Your task to perform on an android device: turn off improve location accuracy Image 0: 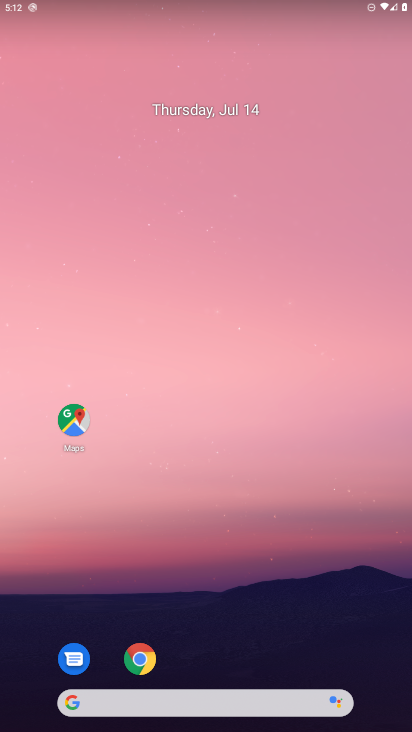
Step 0: press home button
Your task to perform on an android device: turn off improve location accuracy Image 1: 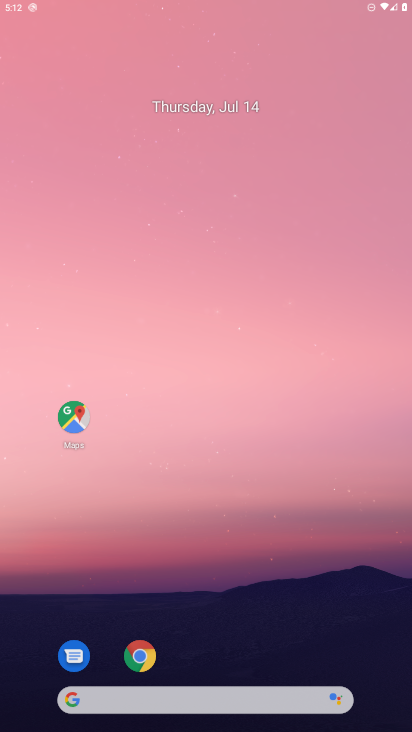
Step 1: drag from (226, 663) to (222, 223)
Your task to perform on an android device: turn off improve location accuracy Image 2: 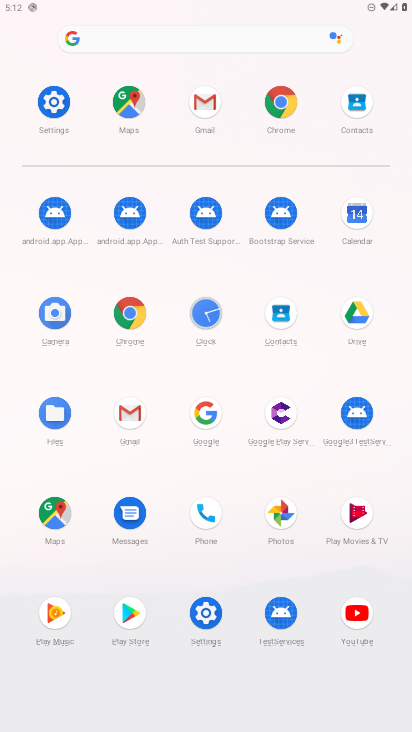
Step 2: click (45, 97)
Your task to perform on an android device: turn off improve location accuracy Image 3: 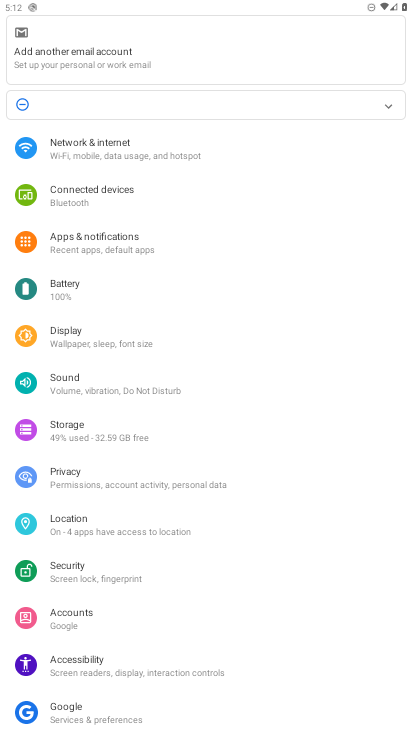
Step 3: click (92, 522)
Your task to perform on an android device: turn off improve location accuracy Image 4: 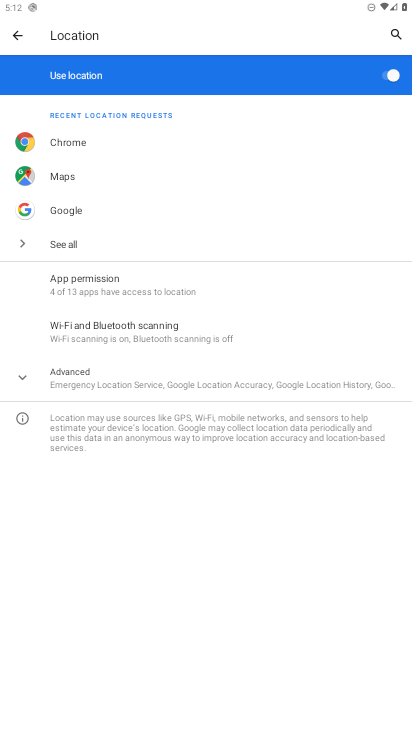
Step 4: click (27, 374)
Your task to perform on an android device: turn off improve location accuracy Image 5: 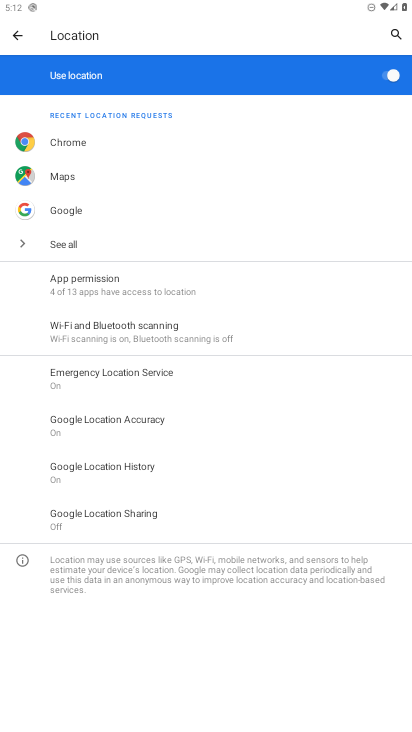
Step 5: click (115, 417)
Your task to perform on an android device: turn off improve location accuracy Image 6: 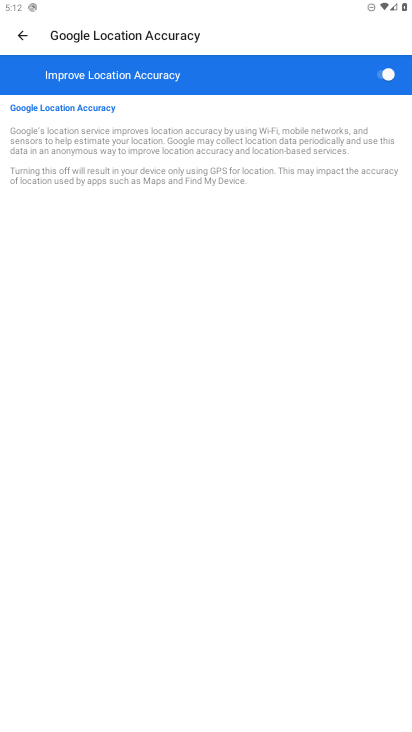
Step 6: click (379, 70)
Your task to perform on an android device: turn off improve location accuracy Image 7: 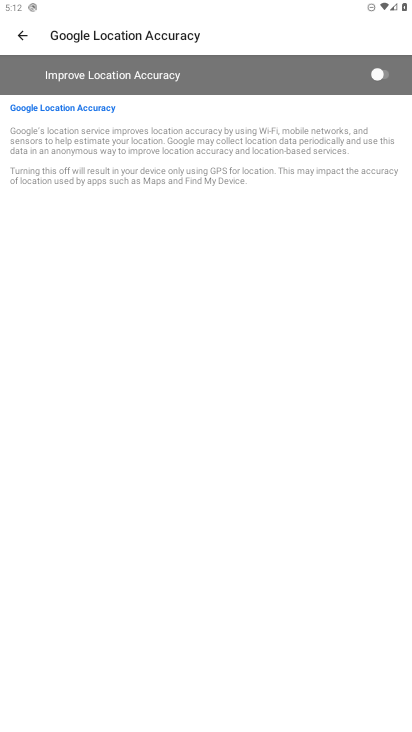
Step 7: task complete